Your task to perform on an android device: Go to Google Image 0: 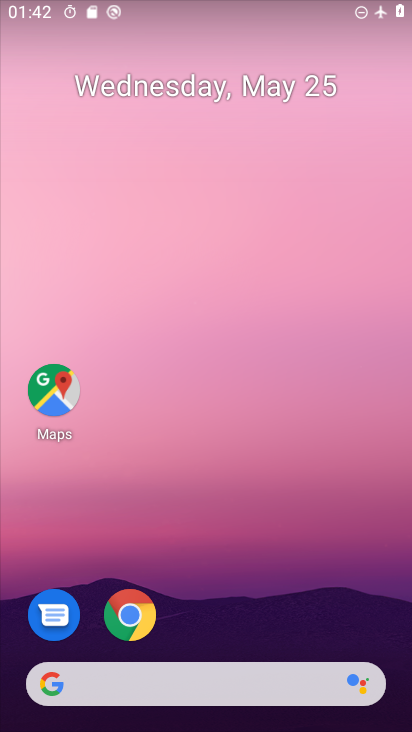
Step 0: drag from (252, 704) to (293, 40)
Your task to perform on an android device: Go to Google Image 1: 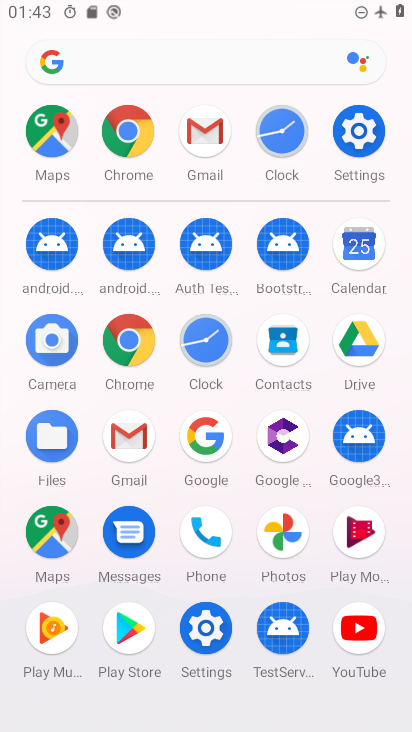
Step 1: click (53, 49)
Your task to perform on an android device: Go to Google Image 2: 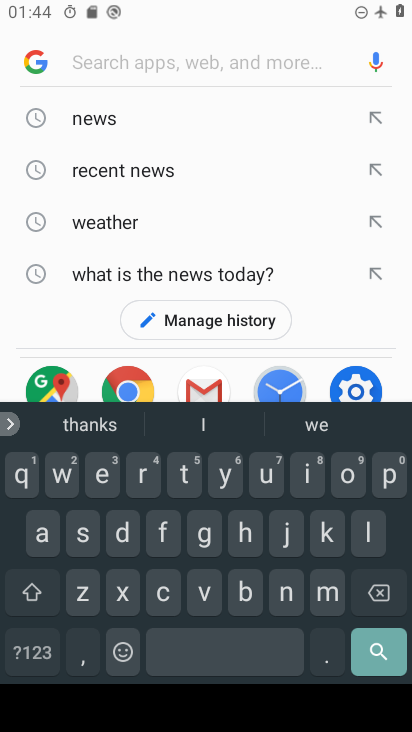
Step 2: click (28, 80)
Your task to perform on an android device: Go to Google Image 3: 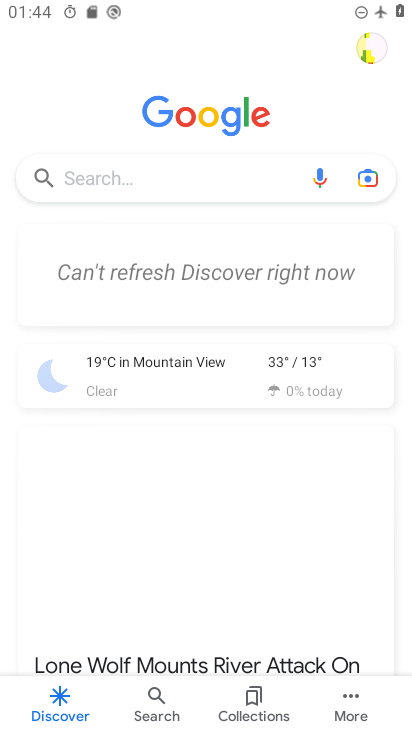
Step 3: press home button
Your task to perform on an android device: Go to Google Image 4: 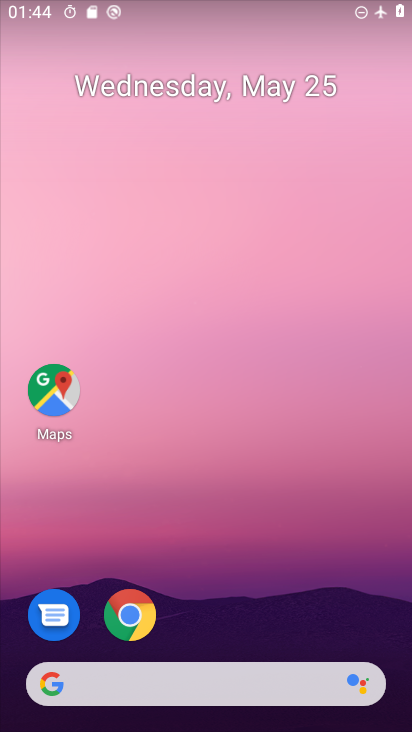
Step 4: drag from (200, 717) to (324, 23)
Your task to perform on an android device: Go to Google Image 5: 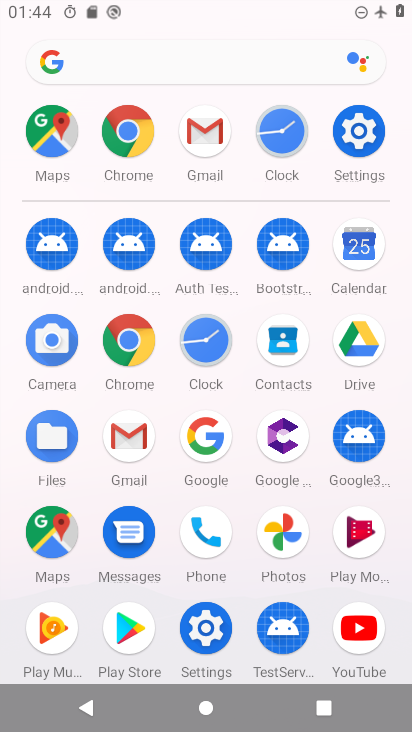
Step 5: click (362, 137)
Your task to perform on an android device: Go to Google Image 6: 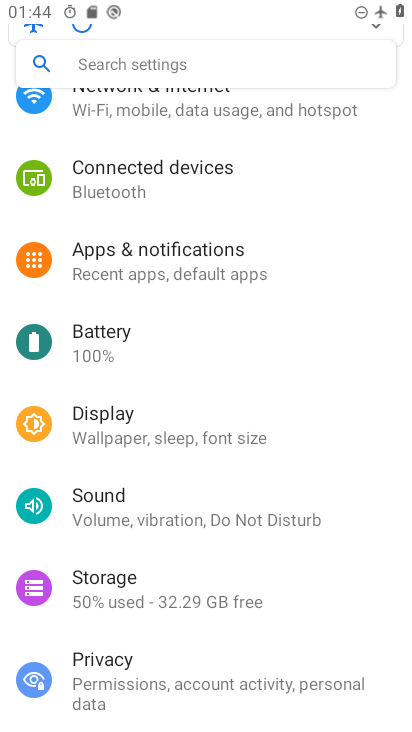
Step 6: click (151, 107)
Your task to perform on an android device: Go to Google Image 7: 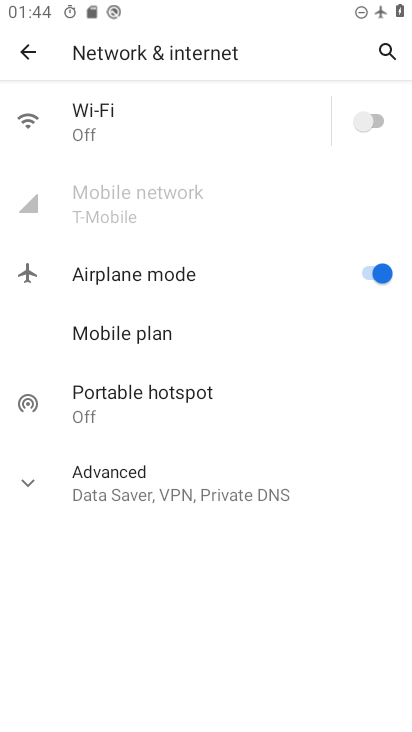
Step 7: click (356, 267)
Your task to perform on an android device: Go to Google Image 8: 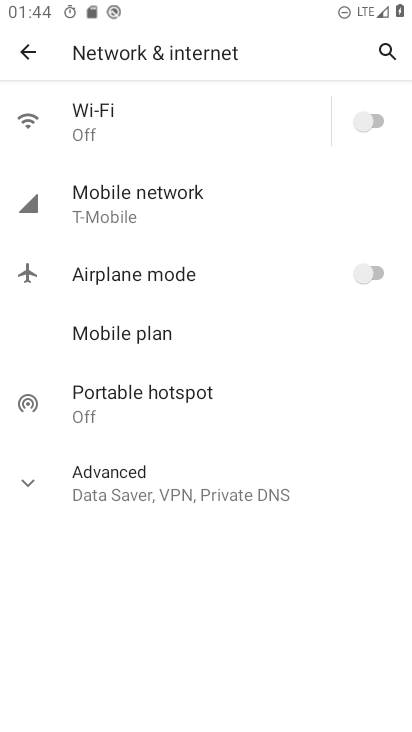
Step 8: press home button
Your task to perform on an android device: Go to Google Image 9: 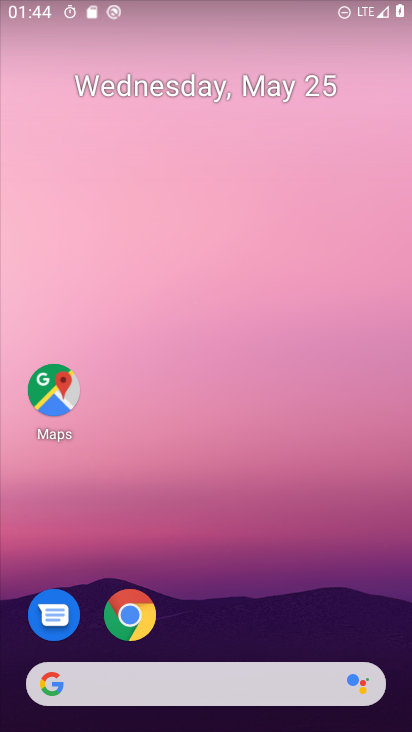
Step 9: drag from (219, 696) to (353, 169)
Your task to perform on an android device: Go to Google Image 10: 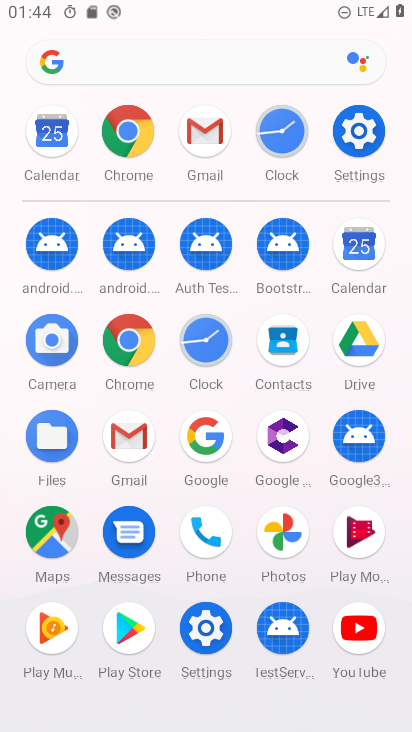
Step 10: click (123, 136)
Your task to perform on an android device: Go to Google Image 11: 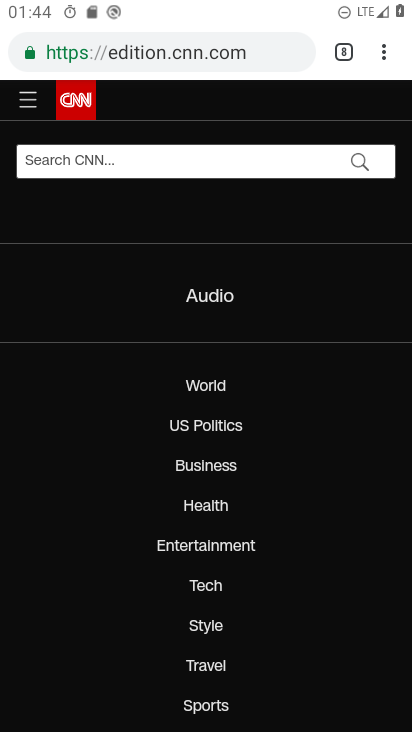
Step 11: click (336, 46)
Your task to perform on an android device: Go to Google Image 12: 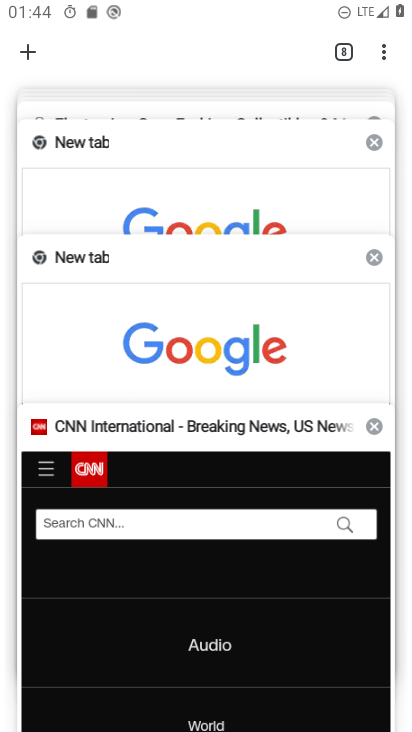
Step 12: click (21, 50)
Your task to perform on an android device: Go to Google Image 13: 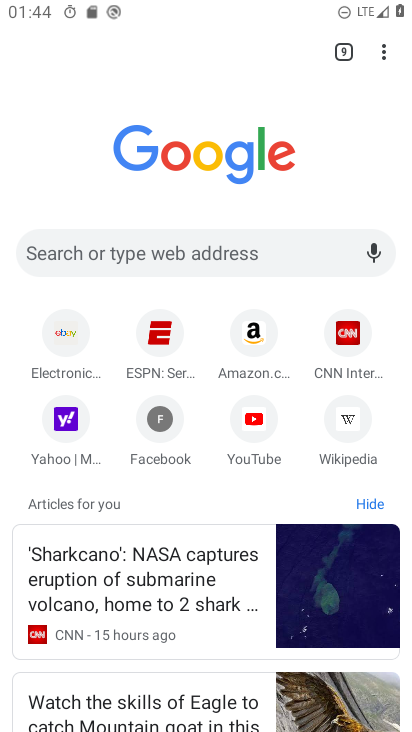
Step 13: task complete